Your task to perform on an android device: Do I have any events this weekend? Image 0: 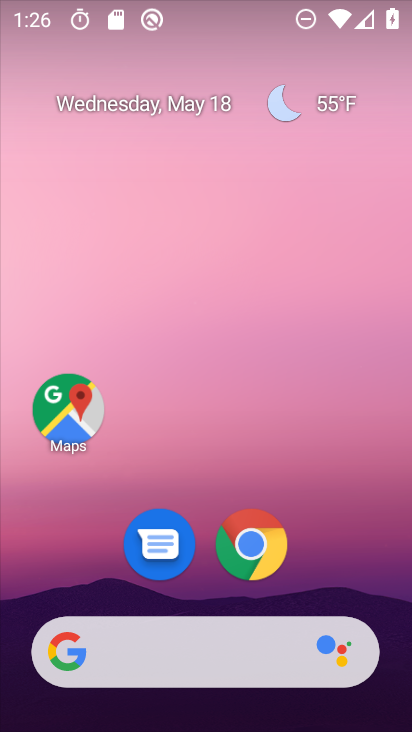
Step 0: click (179, 104)
Your task to perform on an android device: Do I have any events this weekend? Image 1: 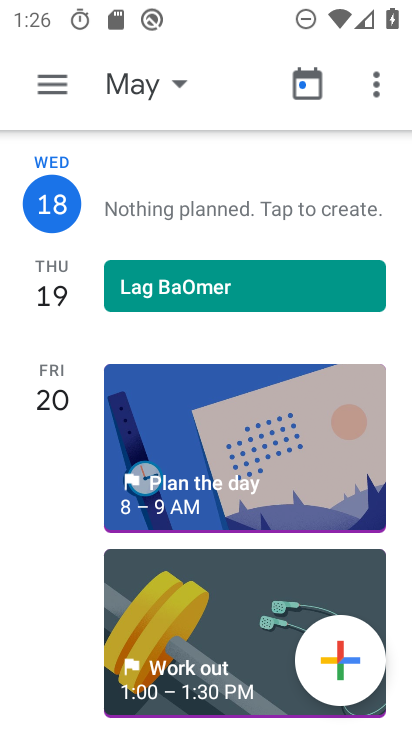
Step 1: click (49, 86)
Your task to perform on an android device: Do I have any events this weekend? Image 2: 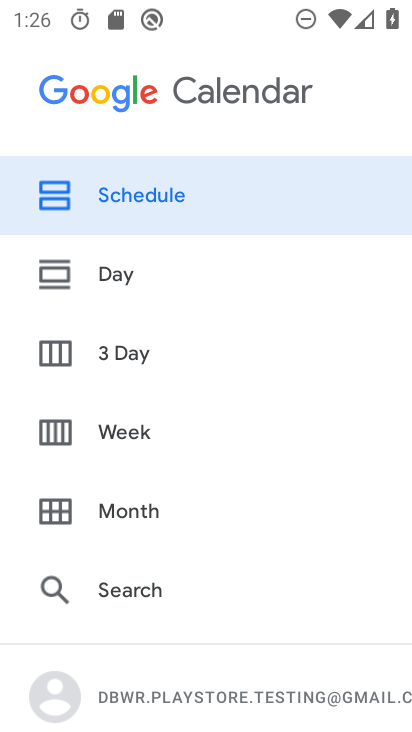
Step 2: drag from (203, 520) to (177, 207)
Your task to perform on an android device: Do I have any events this weekend? Image 3: 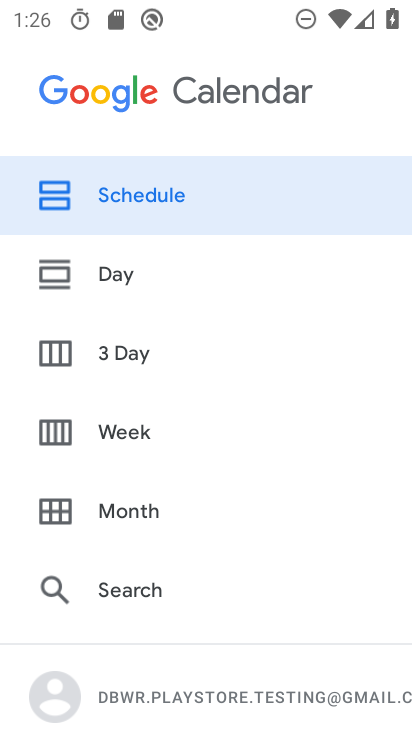
Step 3: drag from (248, 590) to (275, 315)
Your task to perform on an android device: Do I have any events this weekend? Image 4: 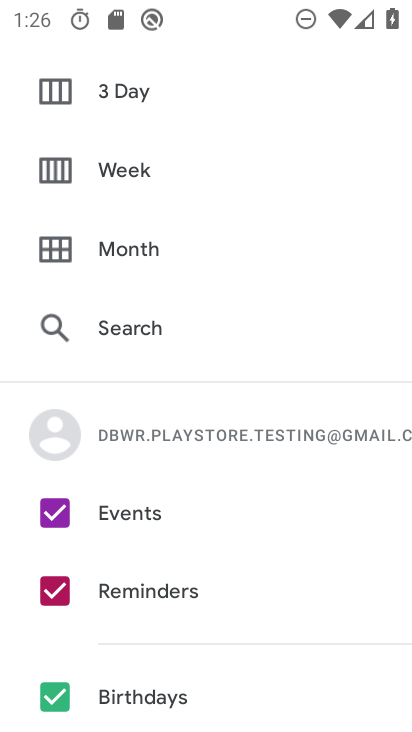
Step 4: drag from (234, 565) to (254, 184)
Your task to perform on an android device: Do I have any events this weekend? Image 5: 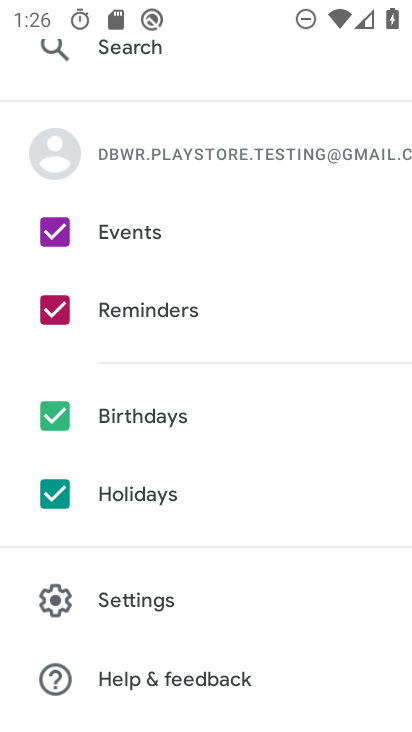
Step 5: click (54, 305)
Your task to perform on an android device: Do I have any events this weekend? Image 6: 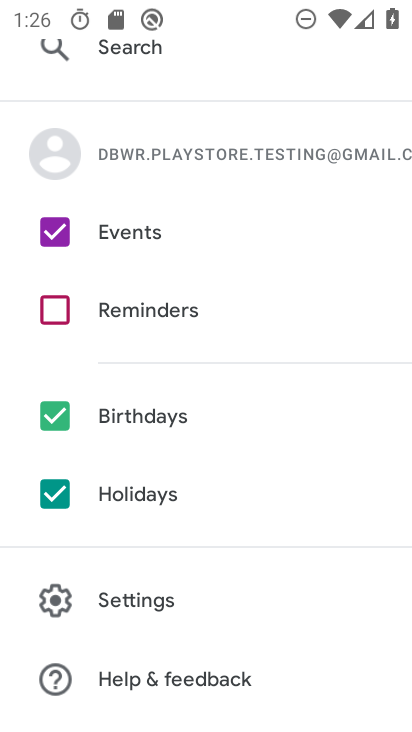
Step 6: click (61, 414)
Your task to perform on an android device: Do I have any events this weekend? Image 7: 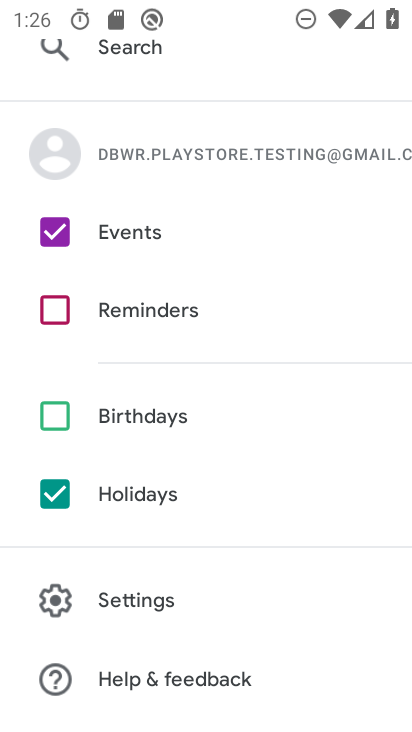
Step 7: click (58, 481)
Your task to perform on an android device: Do I have any events this weekend? Image 8: 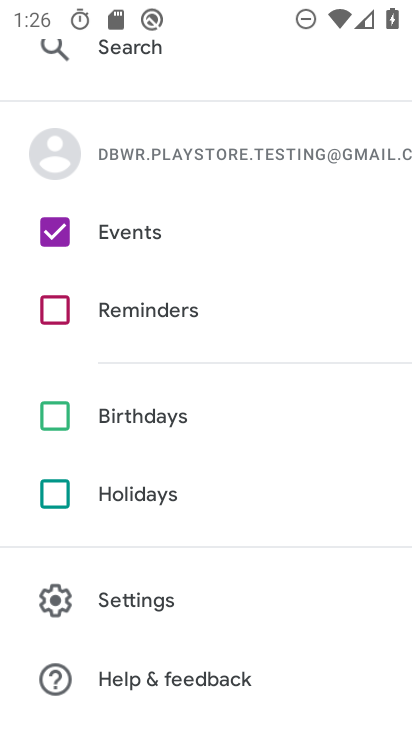
Step 8: drag from (294, 97) to (292, 446)
Your task to perform on an android device: Do I have any events this weekend? Image 9: 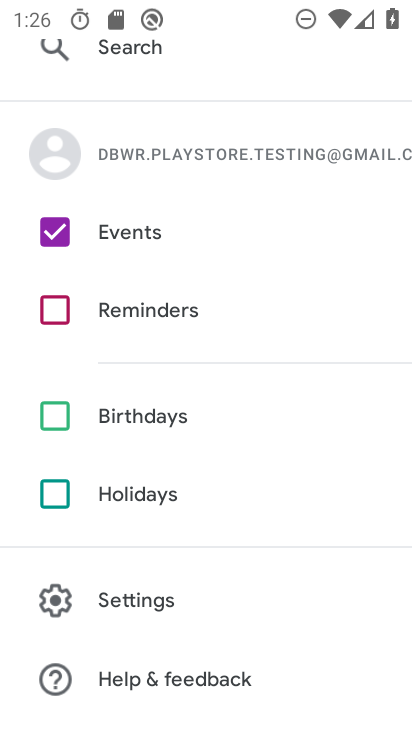
Step 9: drag from (286, 266) to (320, 639)
Your task to perform on an android device: Do I have any events this weekend? Image 10: 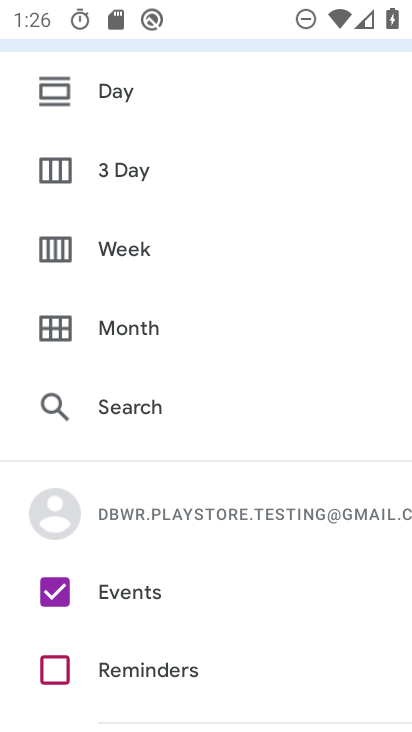
Step 10: click (126, 168)
Your task to perform on an android device: Do I have any events this weekend? Image 11: 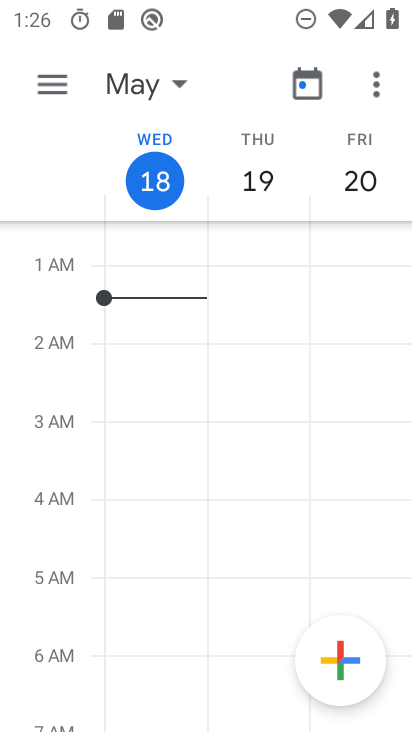
Step 11: task complete